Your task to perform on an android device: see sites visited before in the chrome app Image 0: 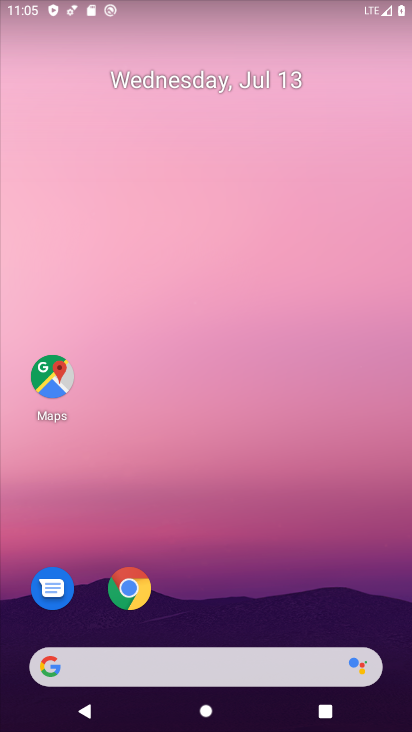
Step 0: drag from (278, 612) to (246, 175)
Your task to perform on an android device: see sites visited before in the chrome app Image 1: 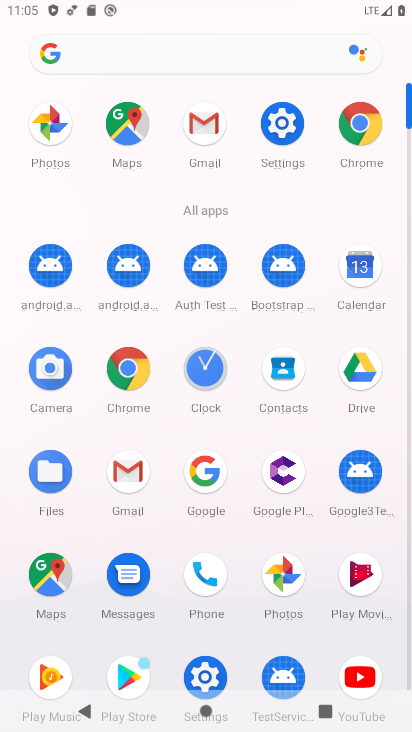
Step 1: click (358, 139)
Your task to perform on an android device: see sites visited before in the chrome app Image 2: 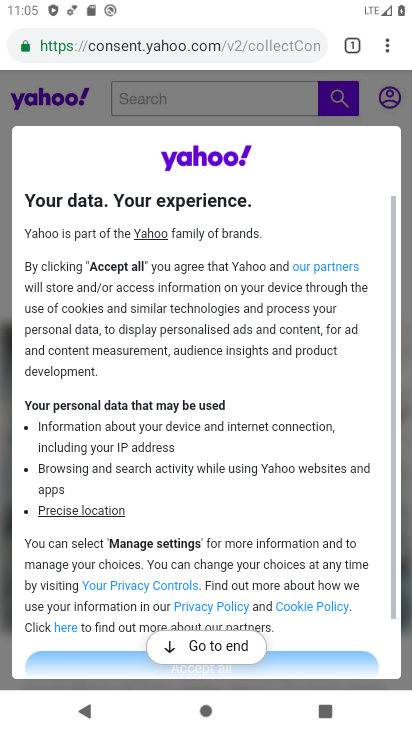
Step 2: click (392, 49)
Your task to perform on an android device: see sites visited before in the chrome app Image 3: 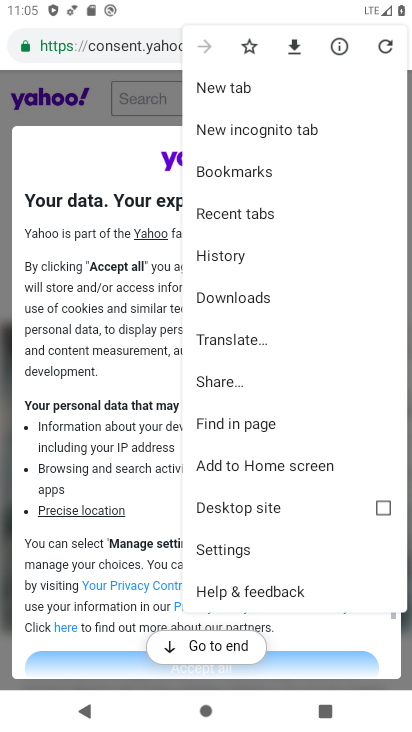
Step 3: click (252, 263)
Your task to perform on an android device: see sites visited before in the chrome app Image 4: 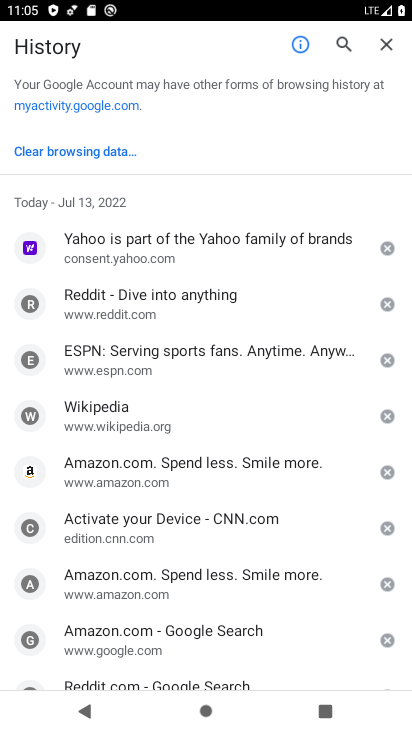
Step 4: task complete